Your task to perform on an android device: check battery use Image 0: 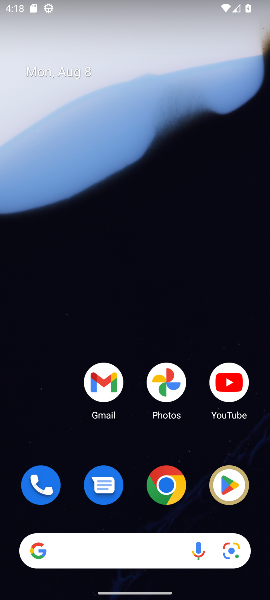
Step 0: drag from (140, 571) to (161, 141)
Your task to perform on an android device: check battery use Image 1: 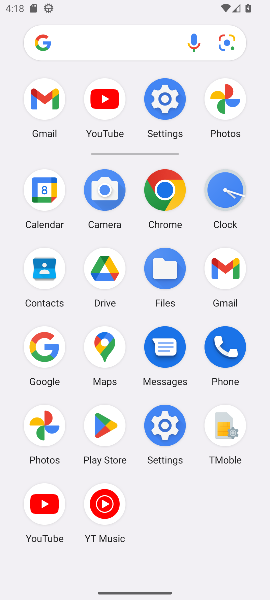
Step 1: click (161, 99)
Your task to perform on an android device: check battery use Image 2: 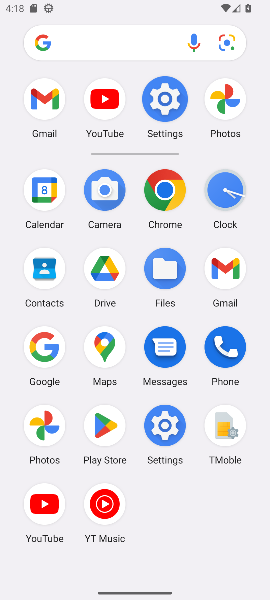
Step 2: click (162, 99)
Your task to perform on an android device: check battery use Image 3: 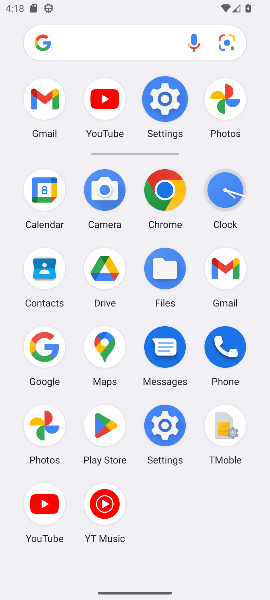
Step 3: click (162, 99)
Your task to perform on an android device: check battery use Image 4: 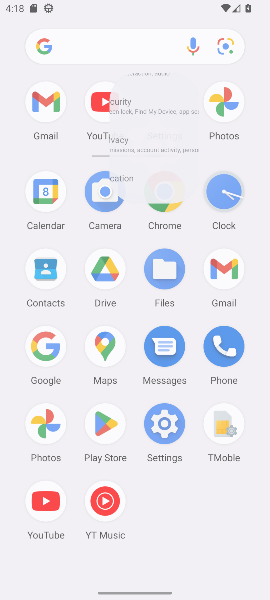
Step 4: click (162, 99)
Your task to perform on an android device: check battery use Image 5: 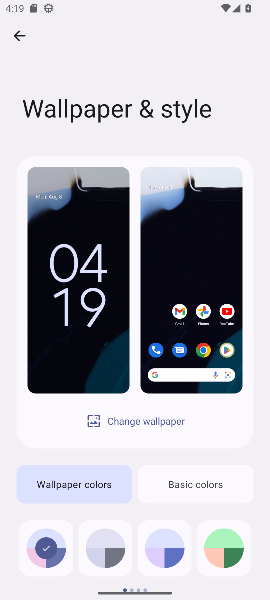
Step 5: click (26, 40)
Your task to perform on an android device: check battery use Image 6: 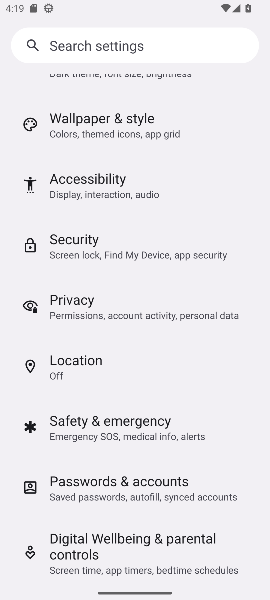
Step 6: drag from (87, 151) to (80, 482)
Your task to perform on an android device: check battery use Image 7: 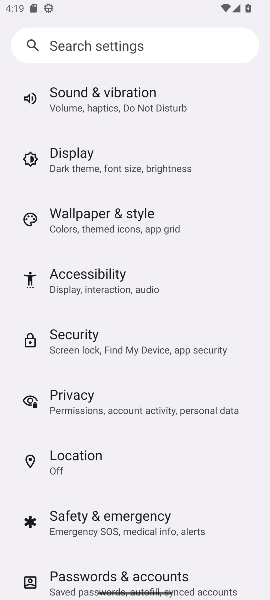
Step 7: drag from (77, 198) to (115, 472)
Your task to perform on an android device: check battery use Image 8: 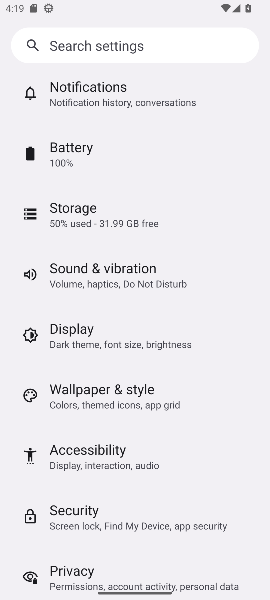
Step 8: drag from (115, 161) to (125, 528)
Your task to perform on an android device: check battery use Image 9: 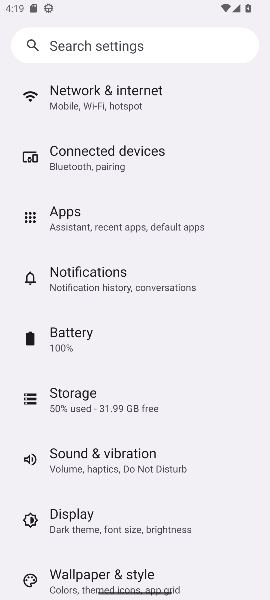
Step 9: drag from (101, 221) to (99, 537)
Your task to perform on an android device: check battery use Image 10: 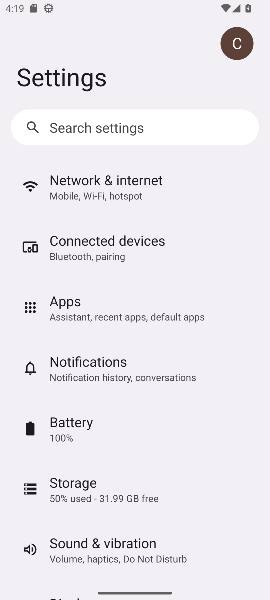
Step 10: drag from (114, 239) to (150, 511)
Your task to perform on an android device: check battery use Image 11: 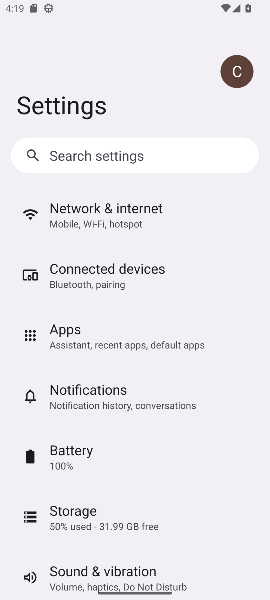
Step 11: click (85, 455)
Your task to perform on an android device: check battery use Image 12: 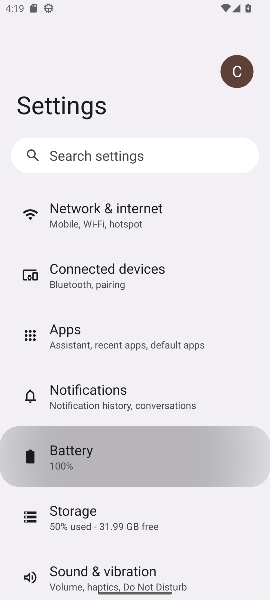
Step 12: click (73, 461)
Your task to perform on an android device: check battery use Image 13: 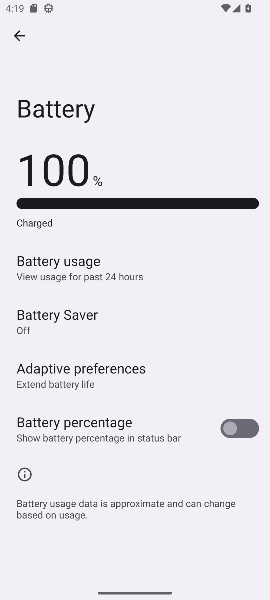
Step 13: task complete